Your task to perform on an android device: Check the weather Image 0: 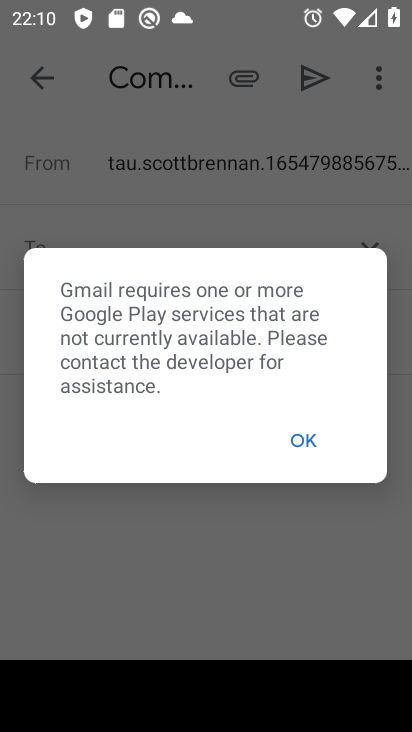
Step 0: press home button
Your task to perform on an android device: Check the weather Image 1: 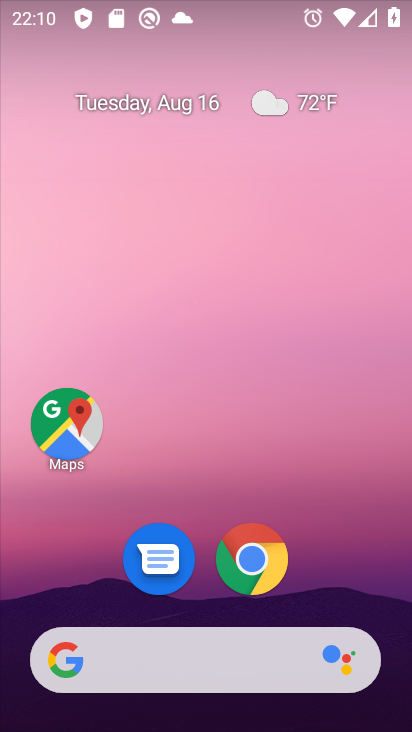
Step 1: drag from (173, 678) to (220, 93)
Your task to perform on an android device: Check the weather Image 2: 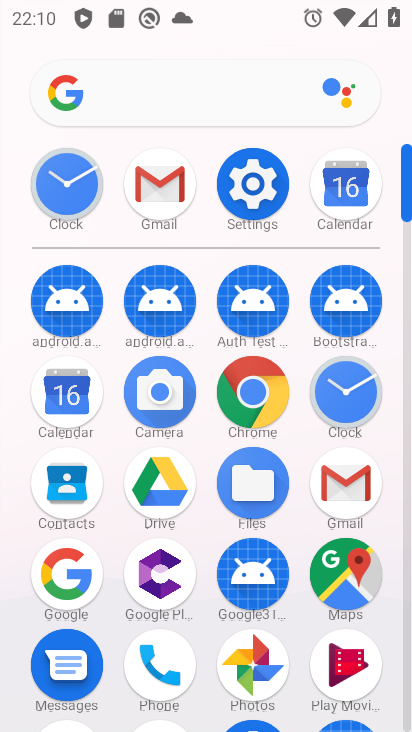
Step 2: click (62, 575)
Your task to perform on an android device: Check the weather Image 3: 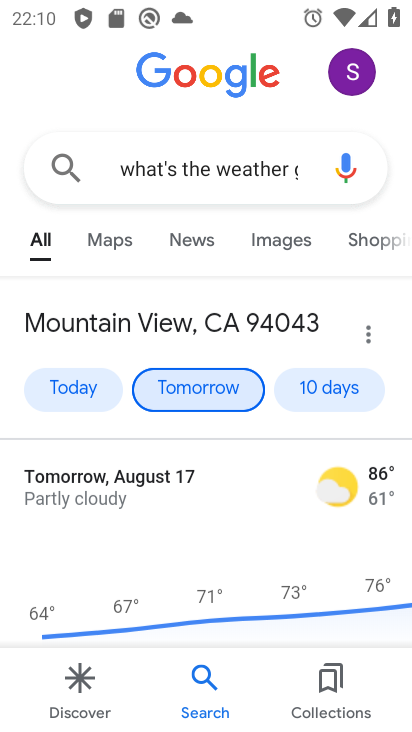
Step 3: click (308, 172)
Your task to perform on an android device: Check the weather Image 4: 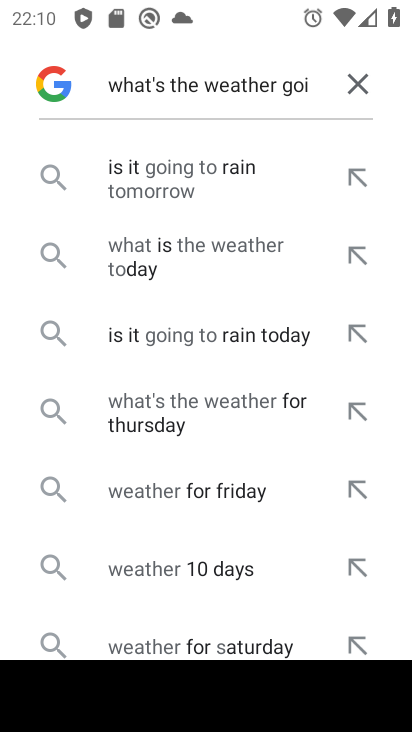
Step 4: click (362, 78)
Your task to perform on an android device: Check the weather Image 5: 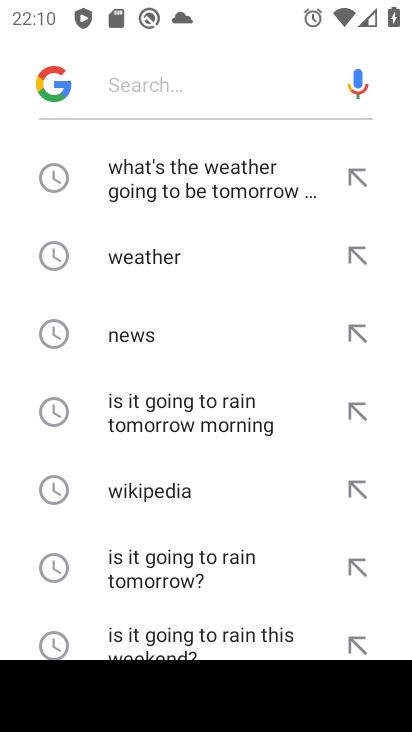
Step 5: click (145, 261)
Your task to perform on an android device: Check the weather Image 6: 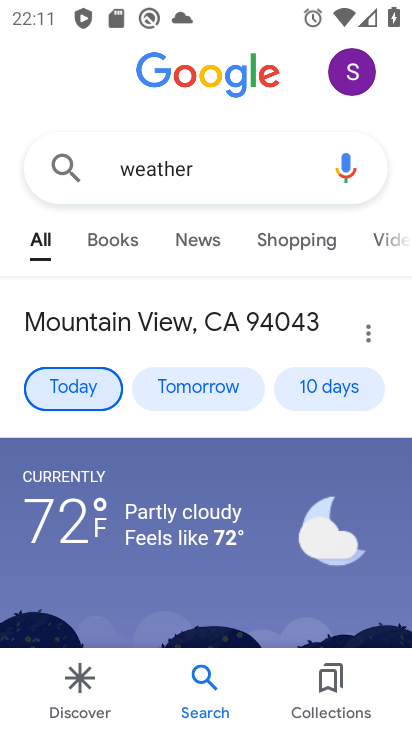
Step 6: task complete